Your task to perform on an android device: How big is the moon? Image 0: 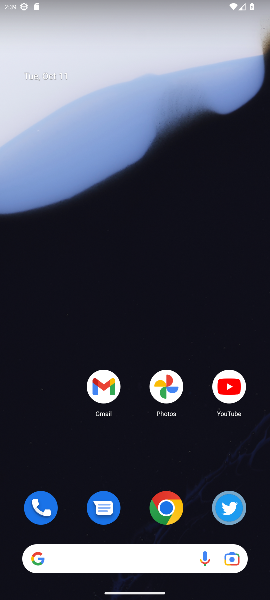
Step 0: click (169, 511)
Your task to perform on an android device: How big is the moon? Image 1: 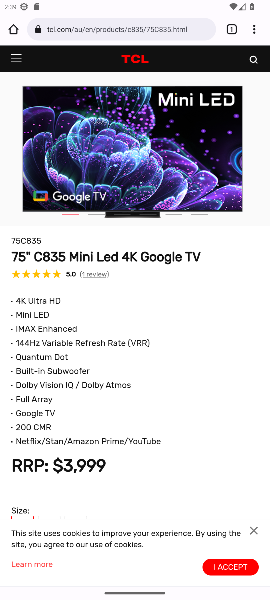
Step 1: click (172, 32)
Your task to perform on an android device: How big is the moon? Image 2: 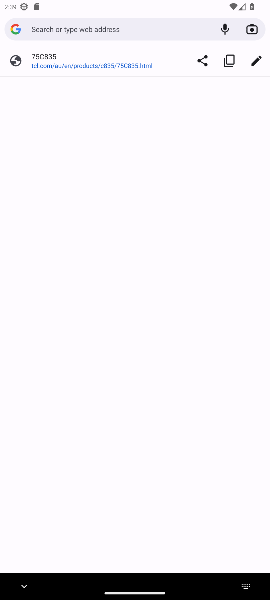
Step 2: type "How big is the moon"
Your task to perform on an android device: How big is the moon? Image 3: 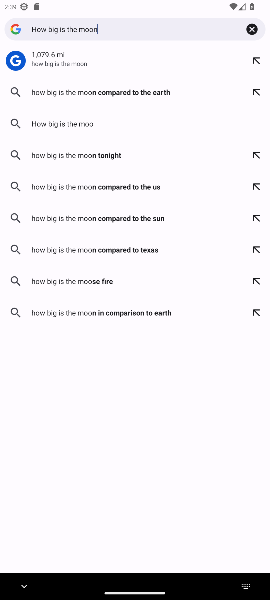
Step 3: press enter
Your task to perform on an android device: How big is the moon? Image 4: 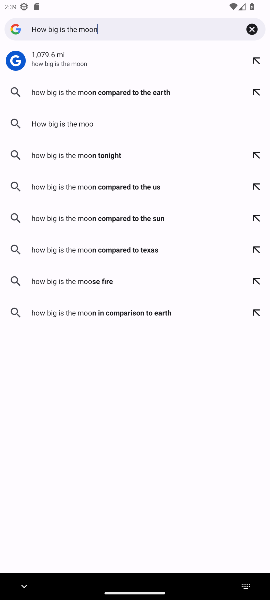
Step 4: type ""
Your task to perform on an android device: How big is the moon? Image 5: 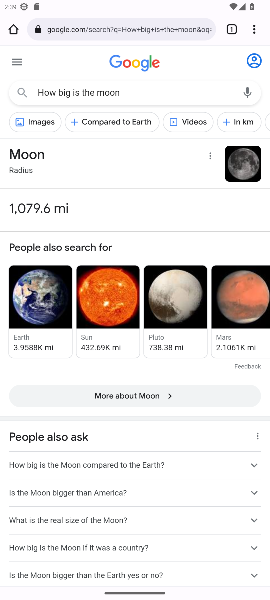
Step 5: task complete